Your task to perform on an android device: What's on my calendar today? Image 0: 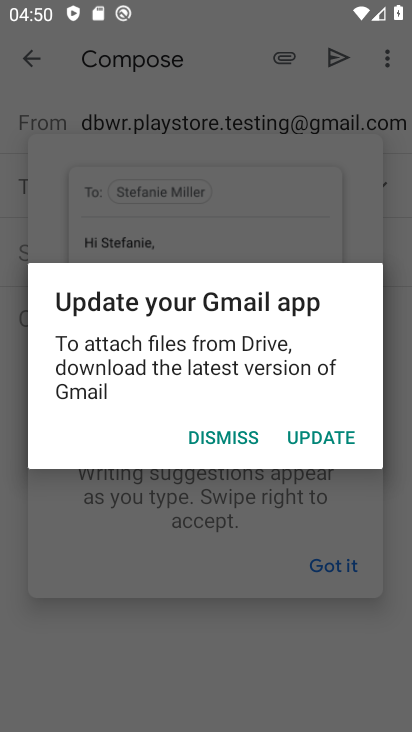
Step 0: press home button
Your task to perform on an android device: What's on my calendar today? Image 1: 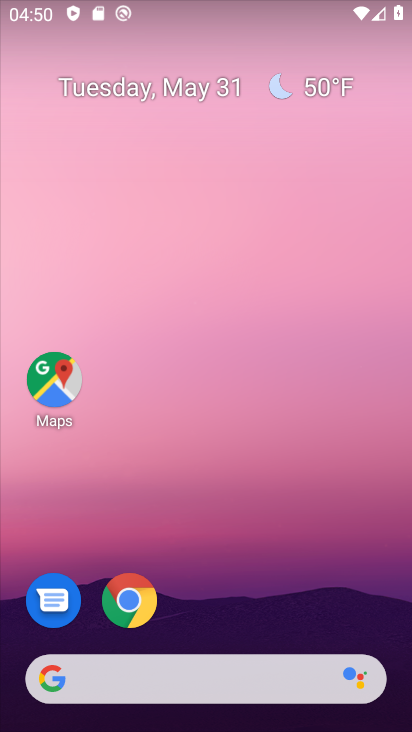
Step 1: drag from (268, 572) to (182, 40)
Your task to perform on an android device: What's on my calendar today? Image 2: 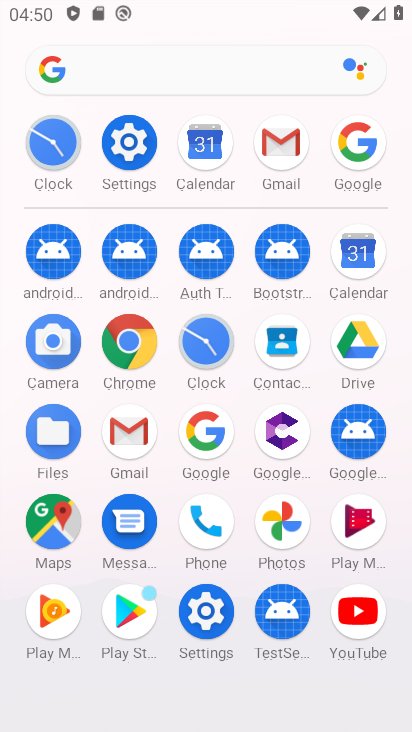
Step 2: click (204, 142)
Your task to perform on an android device: What's on my calendar today? Image 3: 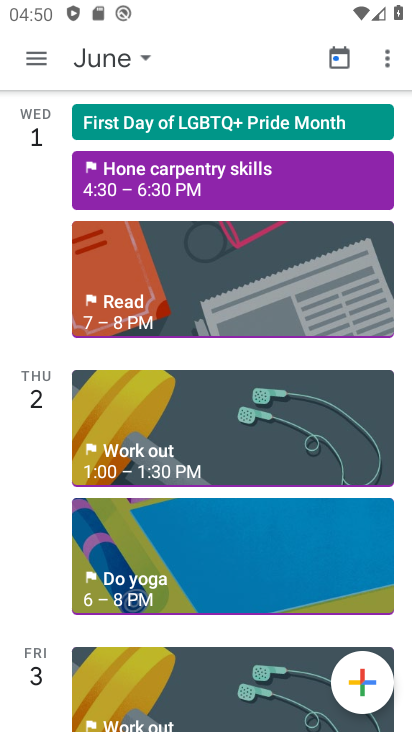
Step 3: click (343, 55)
Your task to perform on an android device: What's on my calendar today? Image 4: 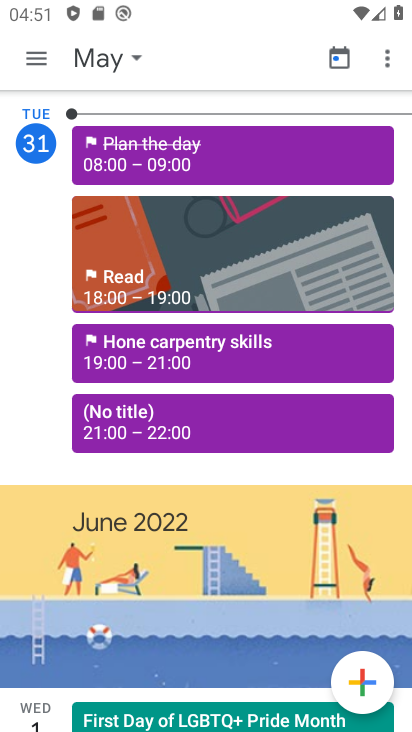
Step 4: click (175, 345)
Your task to perform on an android device: What's on my calendar today? Image 5: 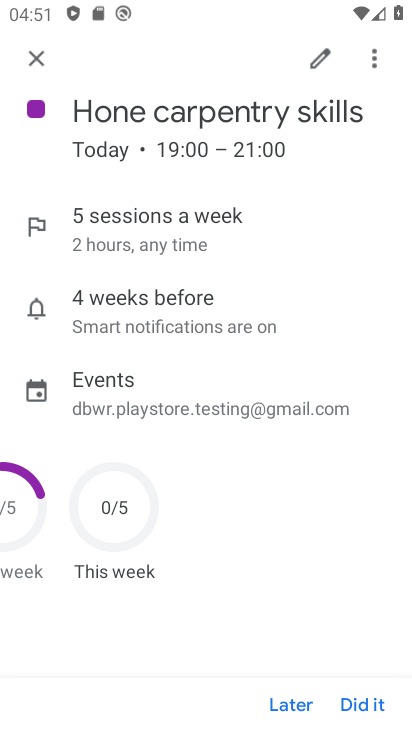
Step 5: task complete